Your task to perform on an android device: Open Google Chrome Image 0: 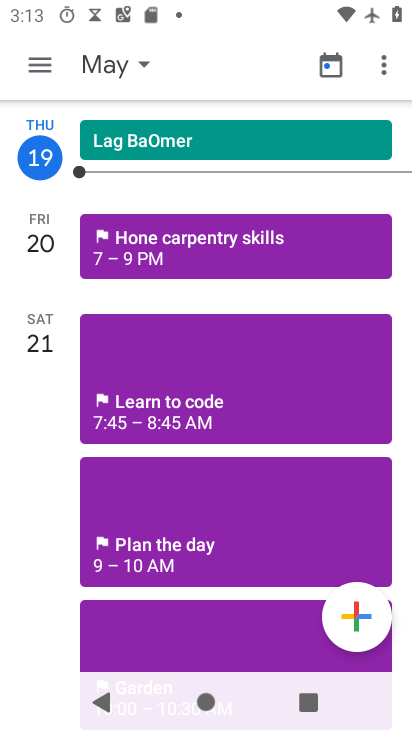
Step 0: press home button
Your task to perform on an android device: Open Google Chrome Image 1: 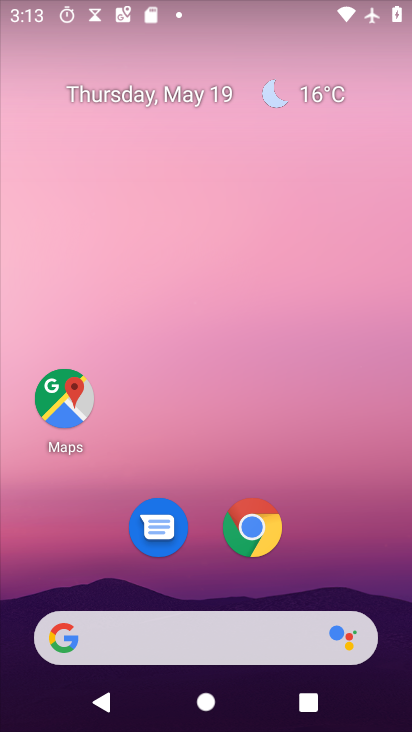
Step 1: click (270, 519)
Your task to perform on an android device: Open Google Chrome Image 2: 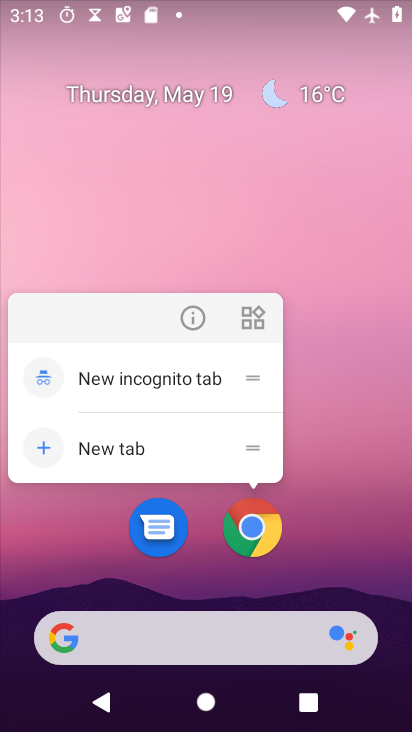
Step 2: click (246, 525)
Your task to perform on an android device: Open Google Chrome Image 3: 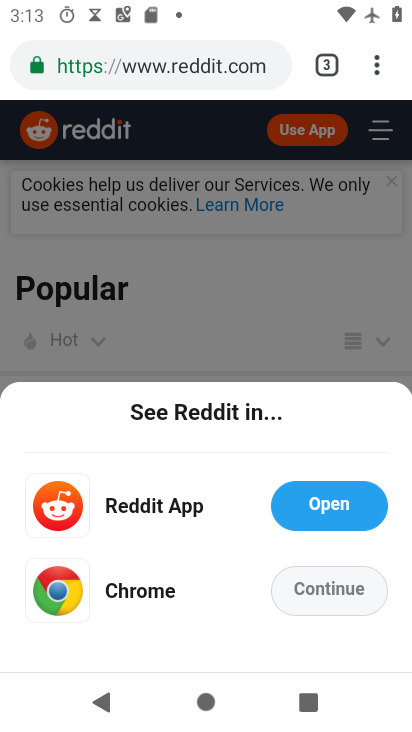
Step 3: task complete